Your task to perform on an android device: turn off smart reply in the gmail app Image 0: 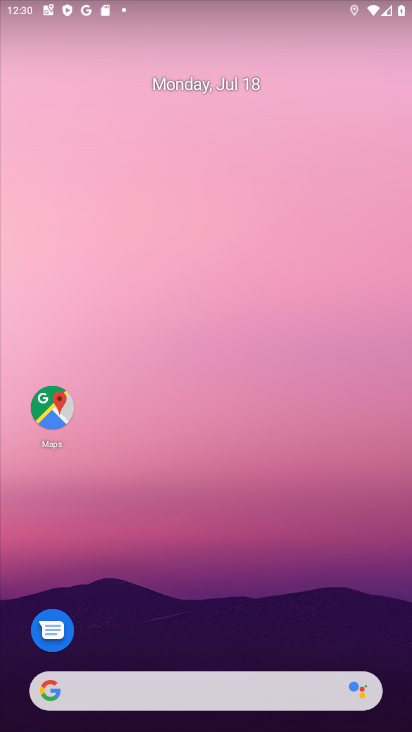
Step 0: drag from (325, 696) to (313, 28)
Your task to perform on an android device: turn off smart reply in the gmail app Image 1: 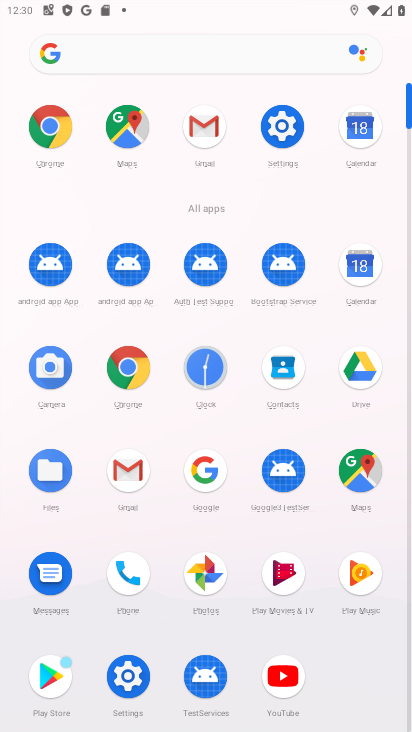
Step 1: click (135, 479)
Your task to perform on an android device: turn off smart reply in the gmail app Image 2: 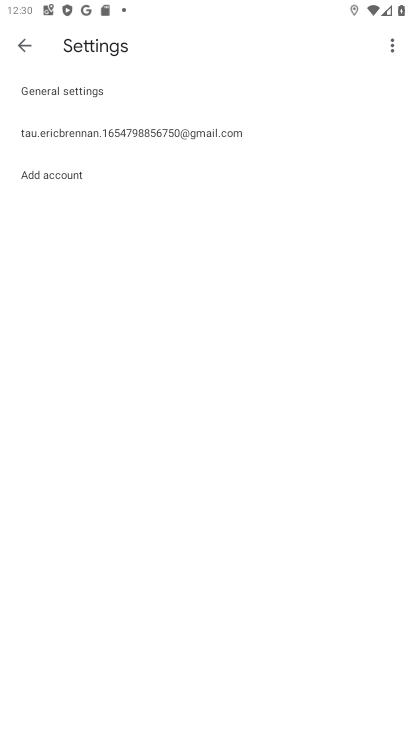
Step 2: click (115, 147)
Your task to perform on an android device: turn off smart reply in the gmail app Image 3: 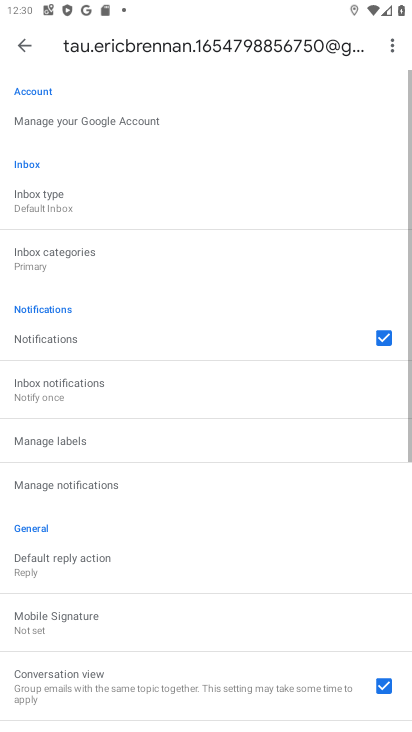
Step 3: drag from (201, 600) to (184, 182)
Your task to perform on an android device: turn off smart reply in the gmail app Image 4: 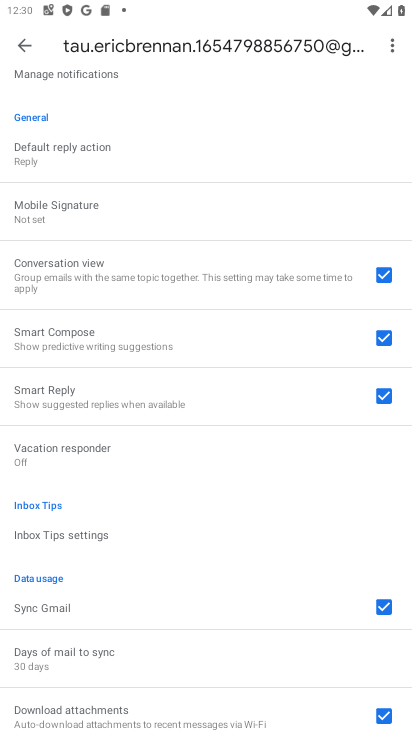
Step 4: click (371, 391)
Your task to perform on an android device: turn off smart reply in the gmail app Image 5: 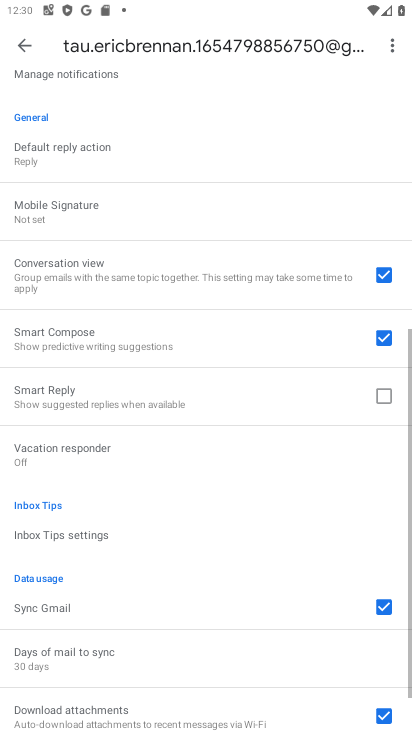
Step 5: task complete